Your task to perform on an android device: Go to Reddit.com Image 0: 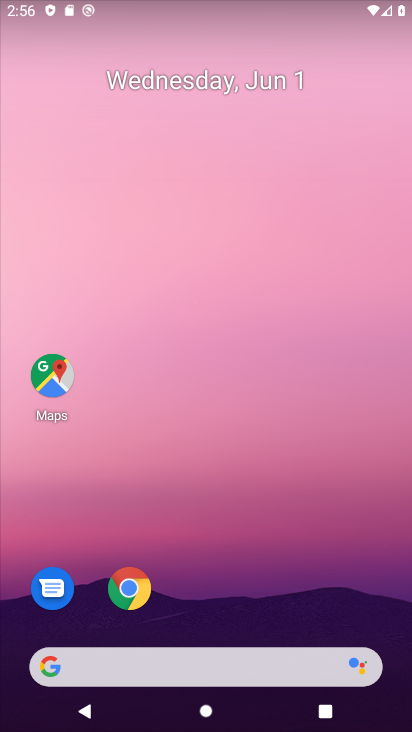
Step 0: click (131, 597)
Your task to perform on an android device: Go to Reddit.com Image 1: 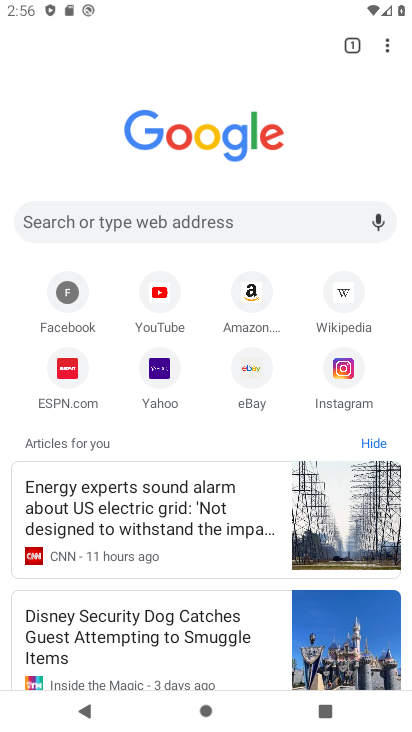
Step 1: click (239, 211)
Your task to perform on an android device: Go to Reddit.com Image 2: 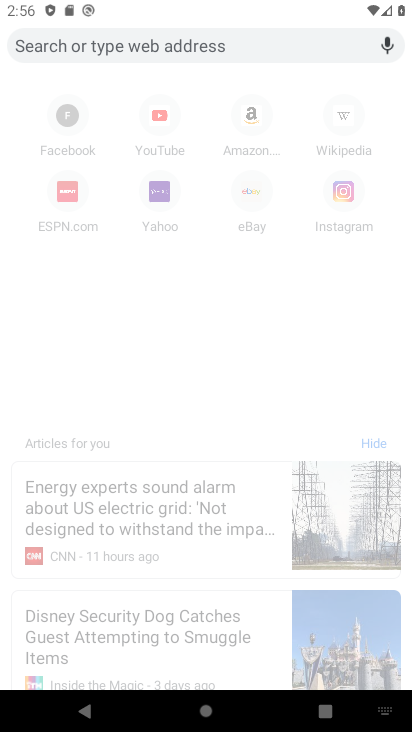
Step 2: type "reddit"
Your task to perform on an android device: Go to Reddit.com Image 3: 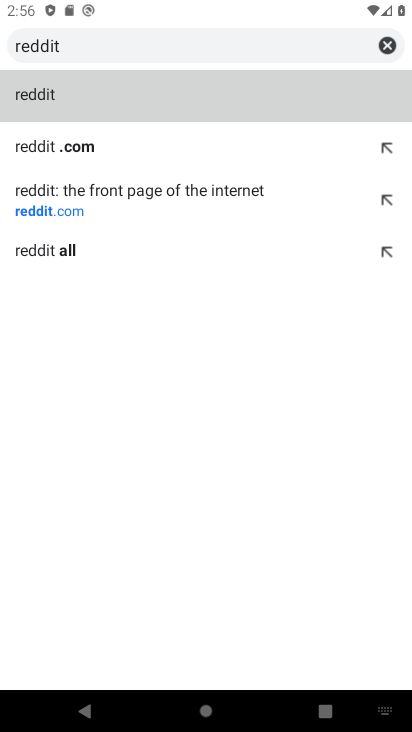
Step 3: click (76, 196)
Your task to perform on an android device: Go to Reddit.com Image 4: 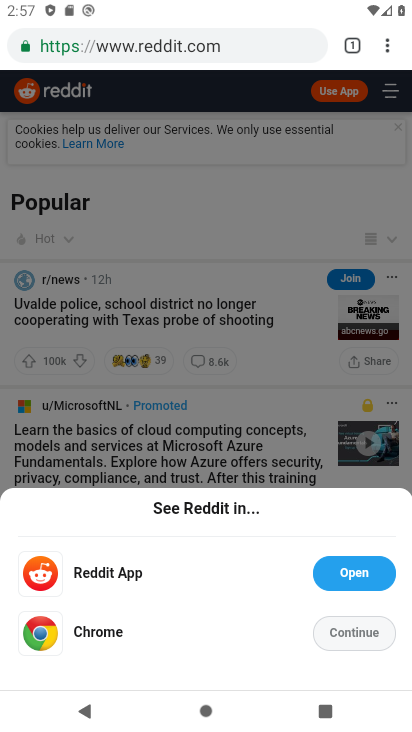
Step 4: task complete